Your task to perform on an android device: Go to Android settings Image 0: 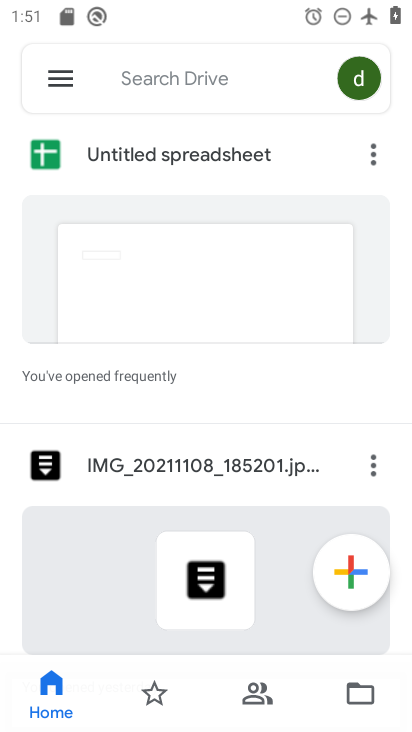
Step 0: press home button
Your task to perform on an android device: Go to Android settings Image 1: 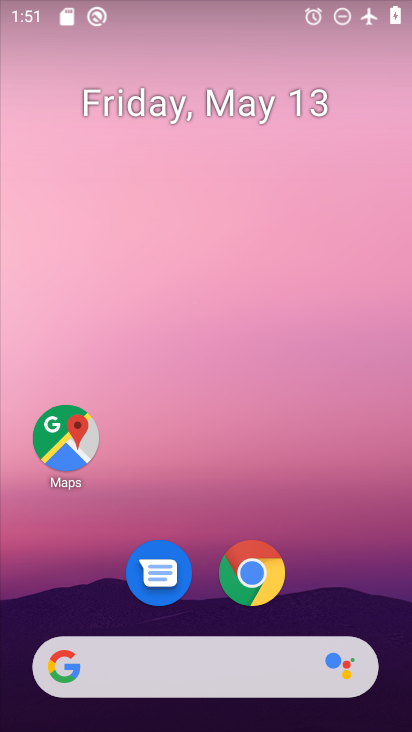
Step 1: drag from (278, 586) to (300, 36)
Your task to perform on an android device: Go to Android settings Image 2: 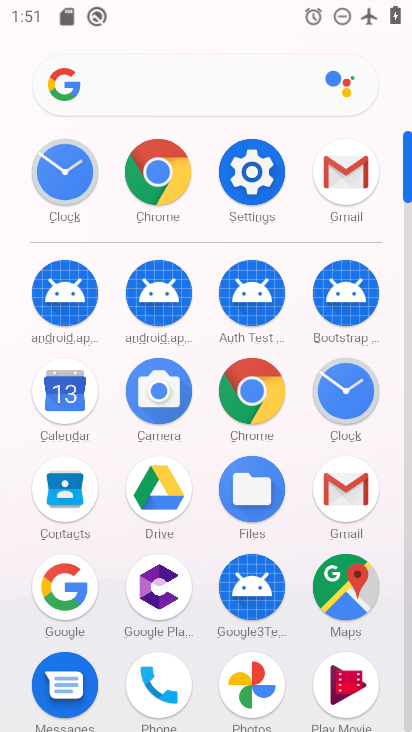
Step 2: click (259, 178)
Your task to perform on an android device: Go to Android settings Image 3: 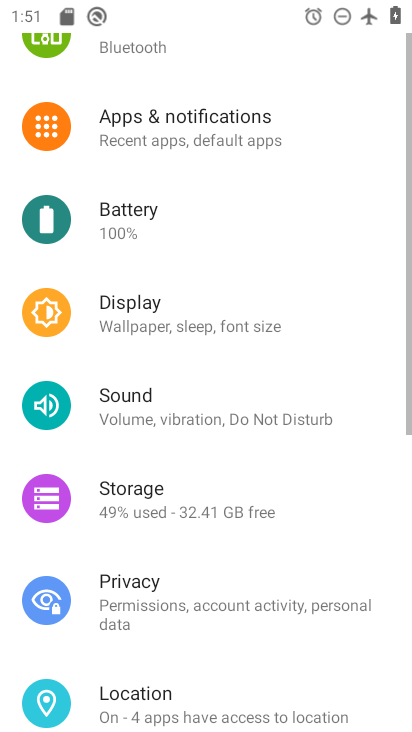
Step 3: drag from (207, 457) to (212, 5)
Your task to perform on an android device: Go to Android settings Image 4: 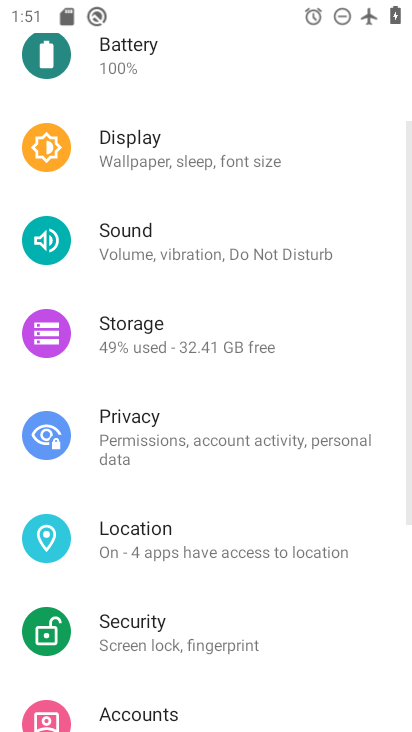
Step 4: drag from (278, 665) to (274, 67)
Your task to perform on an android device: Go to Android settings Image 5: 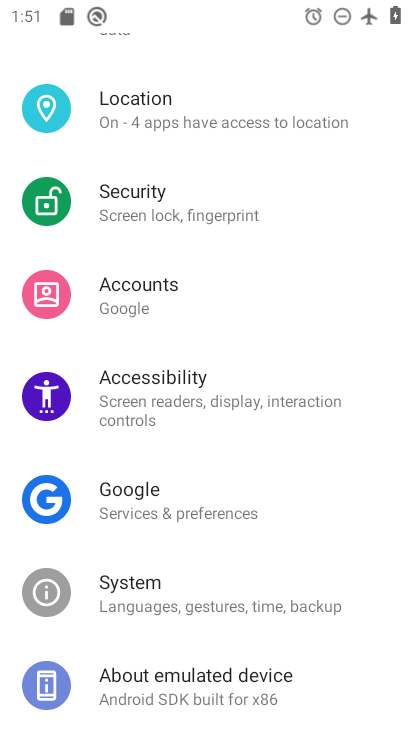
Step 5: drag from (316, 637) to (304, 251)
Your task to perform on an android device: Go to Android settings Image 6: 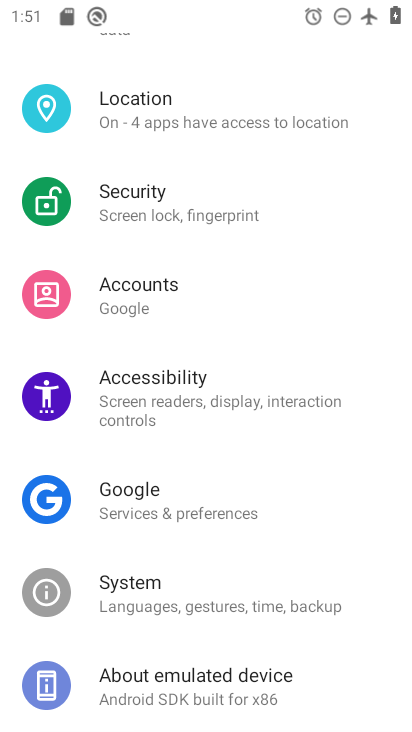
Step 6: click (285, 695)
Your task to perform on an android device: Go to Android settings Image 7: 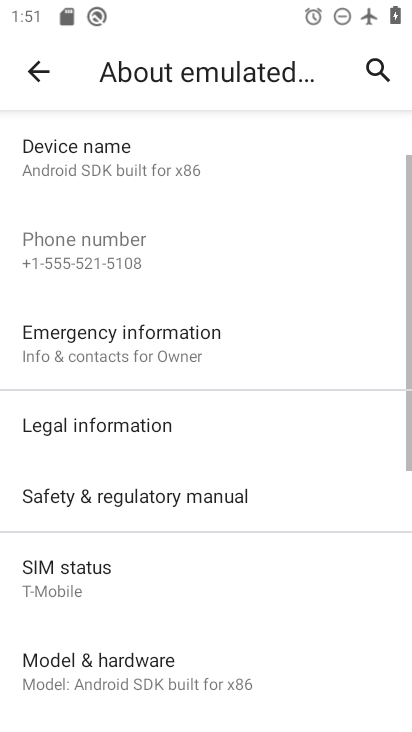
Step 7: task complete